Your task to perform on an android device: Open privacy settings Image 0: 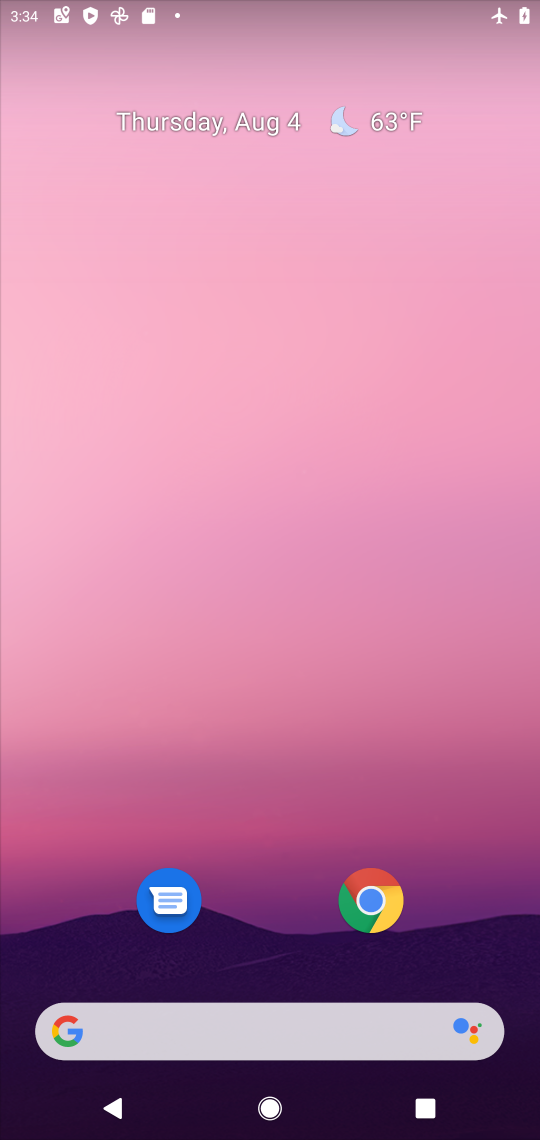
Step 0: drag from (457, 923) to (244, 210)
Your task to perform on an android device: Open privacy settings Image 1: 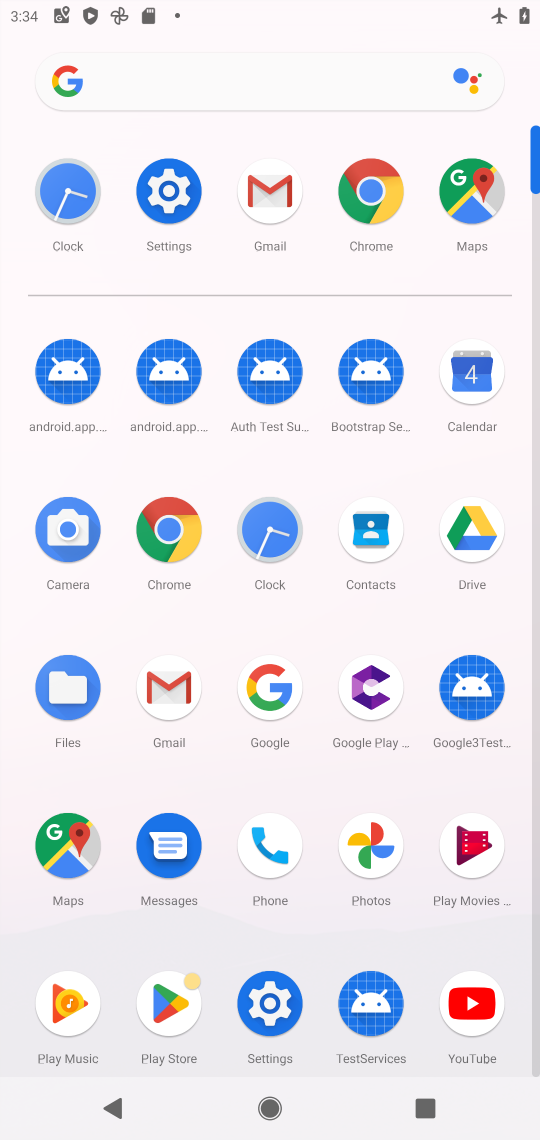
Step 1: click (180, 189)
Your task to perform on an android device: Open privacy settings Image 2: 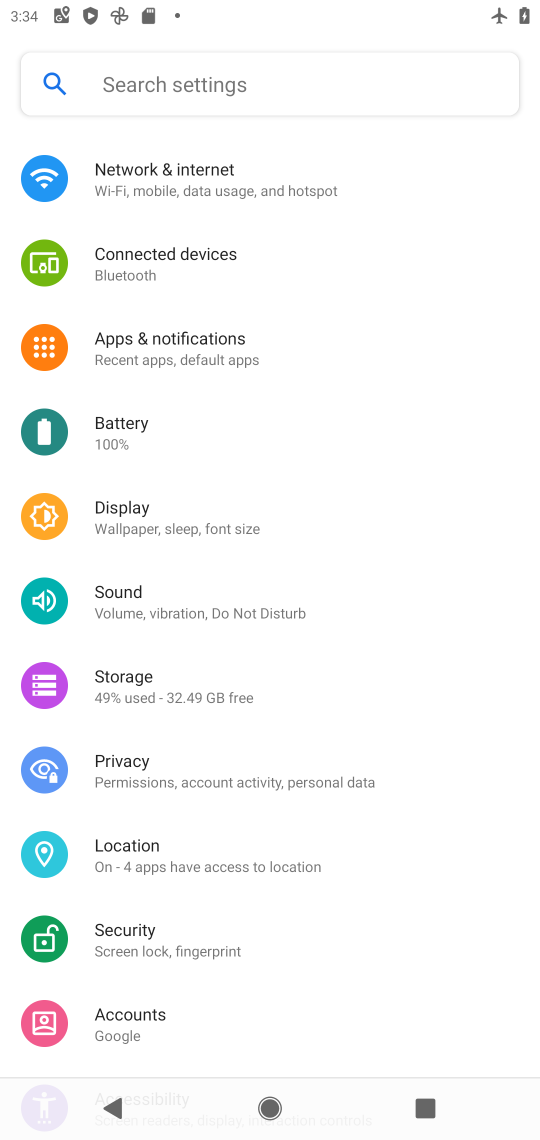
Step 2: click (175, 777)
Your task to perform on an android device: Open privacy settings Image 3: 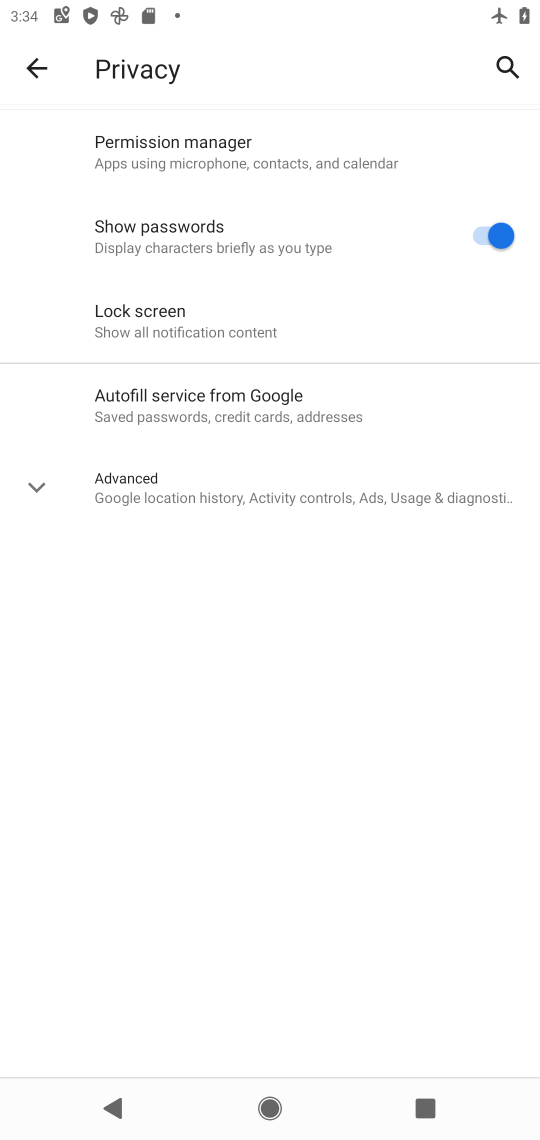
Step 3: task complete